Your task to perform on an android device: check data usage Image 0: 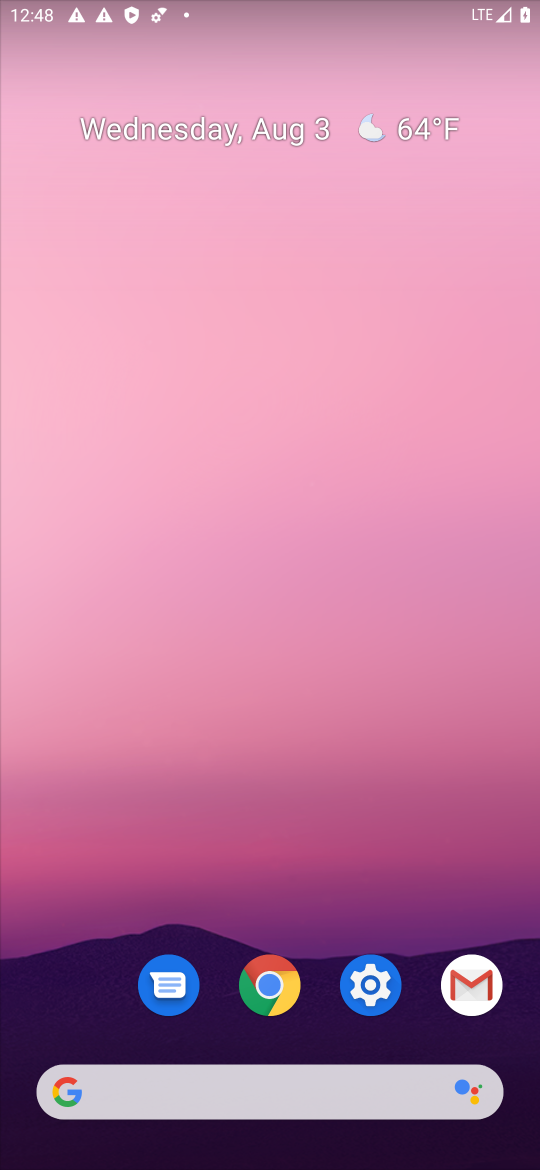
Step 0: press home button
Your task to perform on an android device: check data usage Image 1: 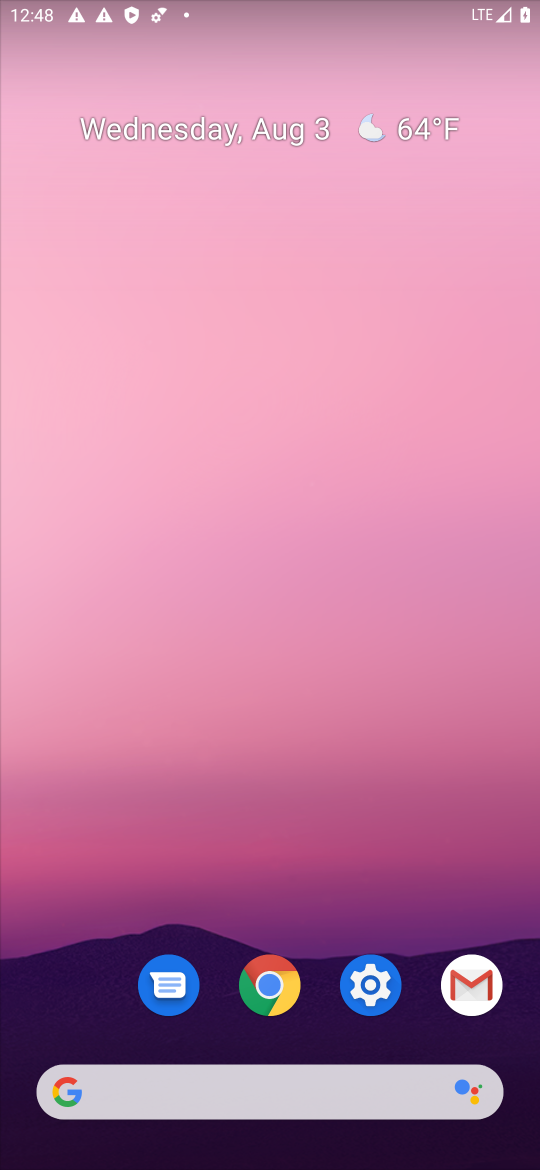
Step 1: click (369, 985)
Your task to perform on an android device: check data usage Image 2: 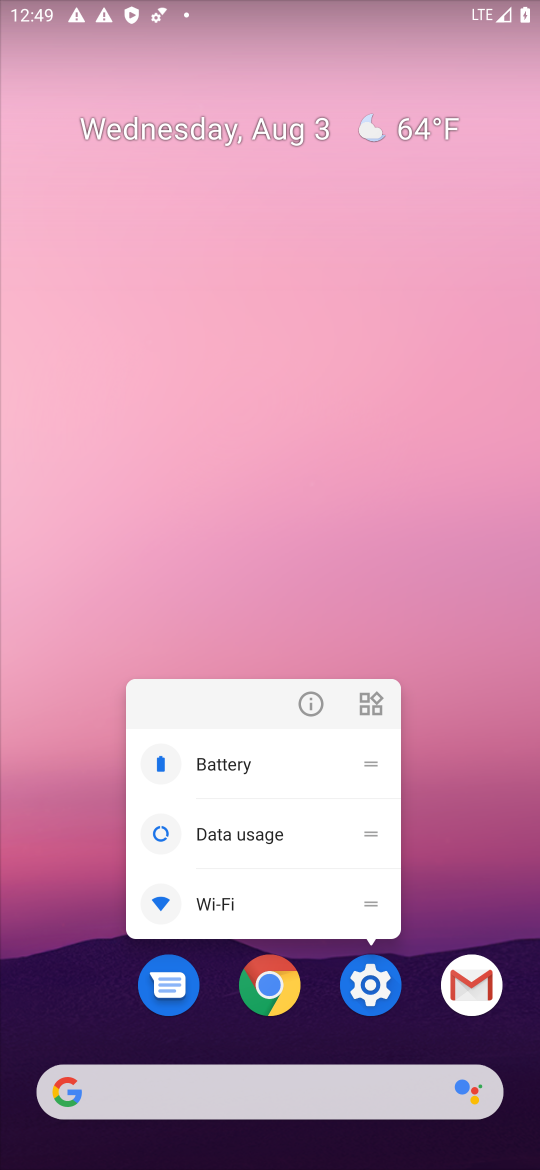
Step 2: click (364, 986)
Your task to perform on an android device: check data usage Image 3: 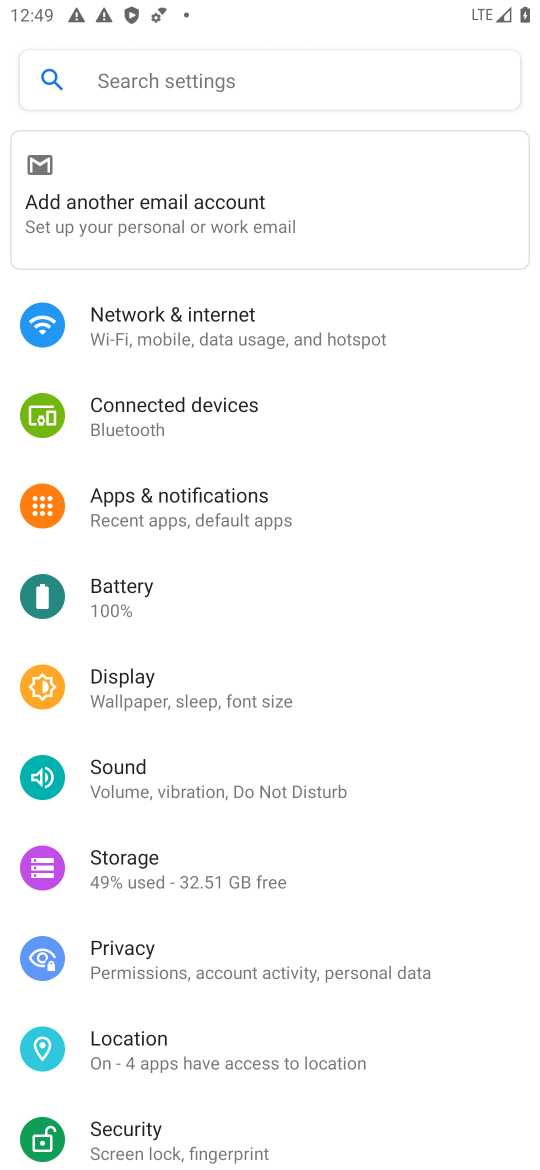
Step 3: click (161, 77)
Your task to perform on an android device: check data usage Image 4: 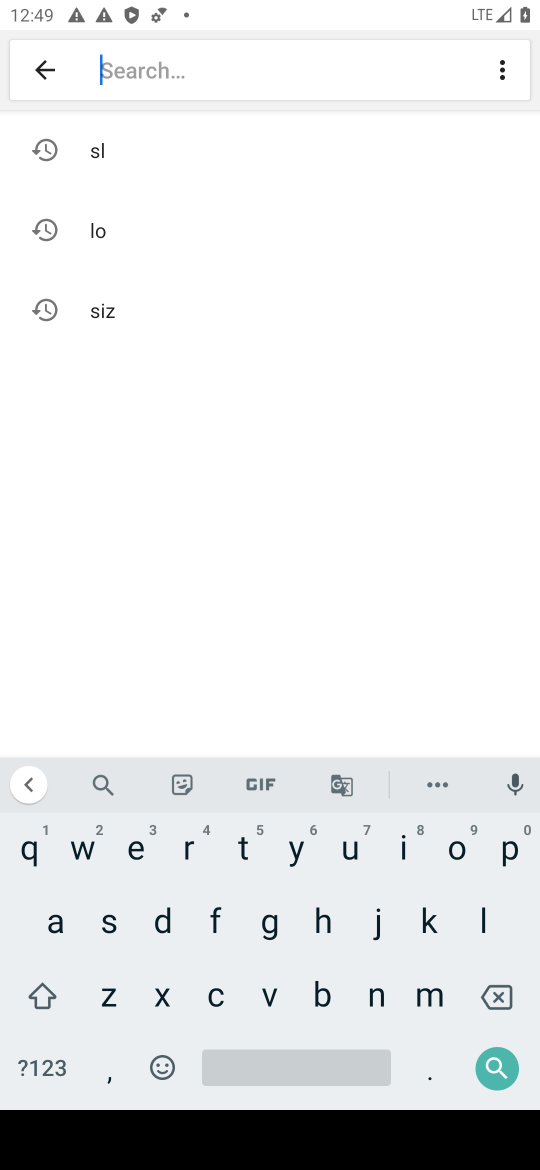
Step 4: click (165, 914)
Your task to perform on an android device: check data usage Image 5: 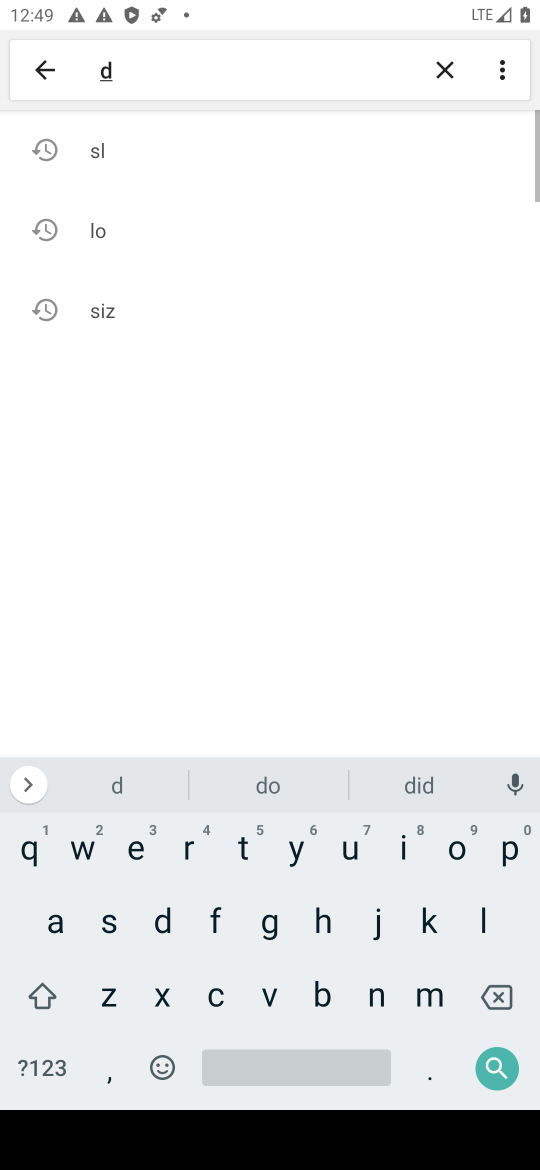
Step 5: click (43, 916)
Your task to perform on an android device: check data usage Image 6: 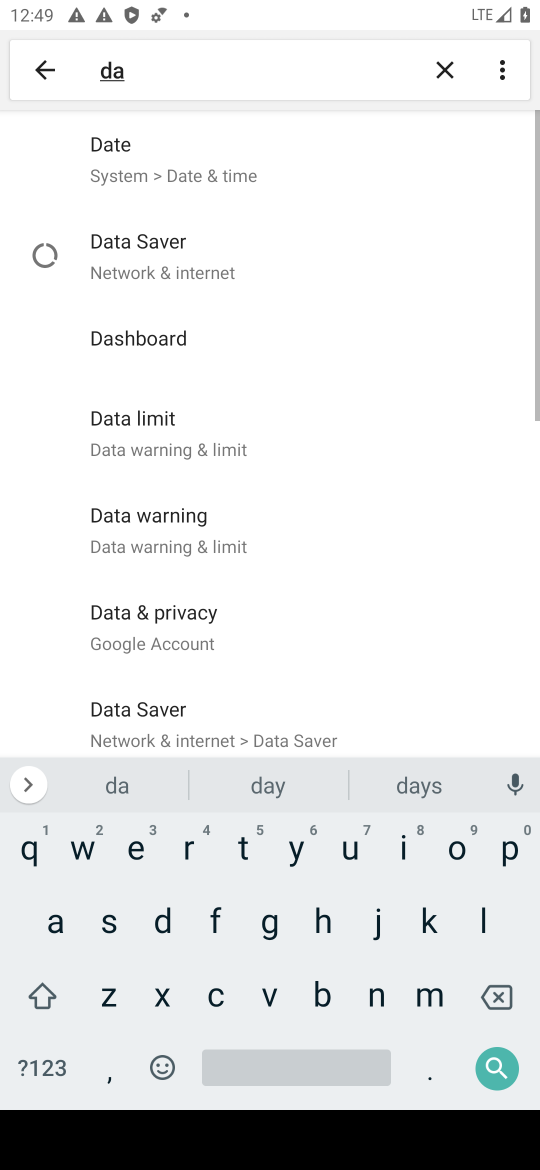
Step 6: click (247, 837)
Your task to perform on an android device: check data usage Image 7: 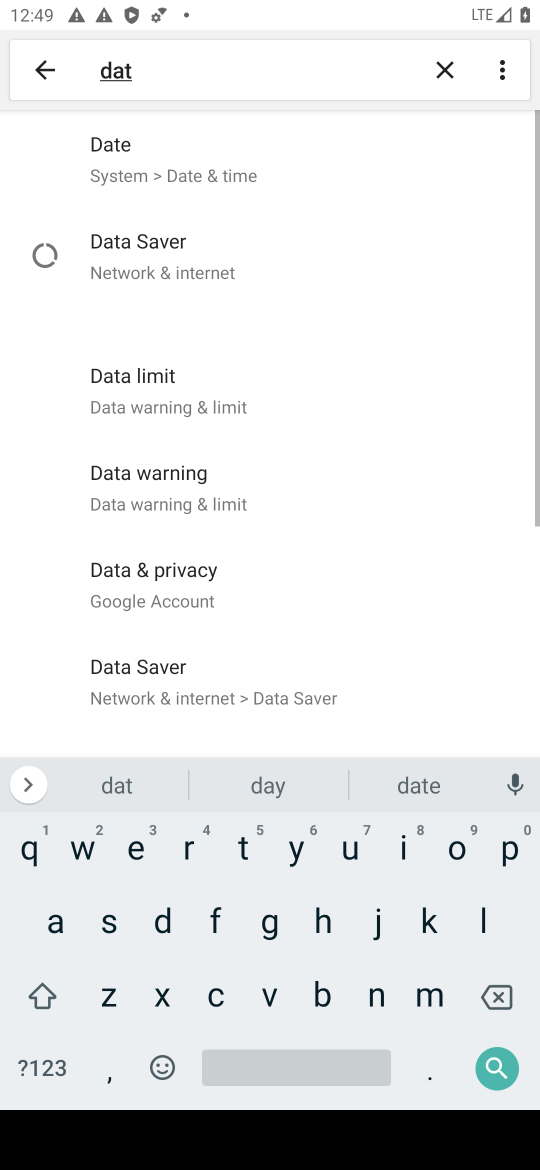
Step 7: click (51, 923)
Your task to perform on an android device: check data usage Image 8: 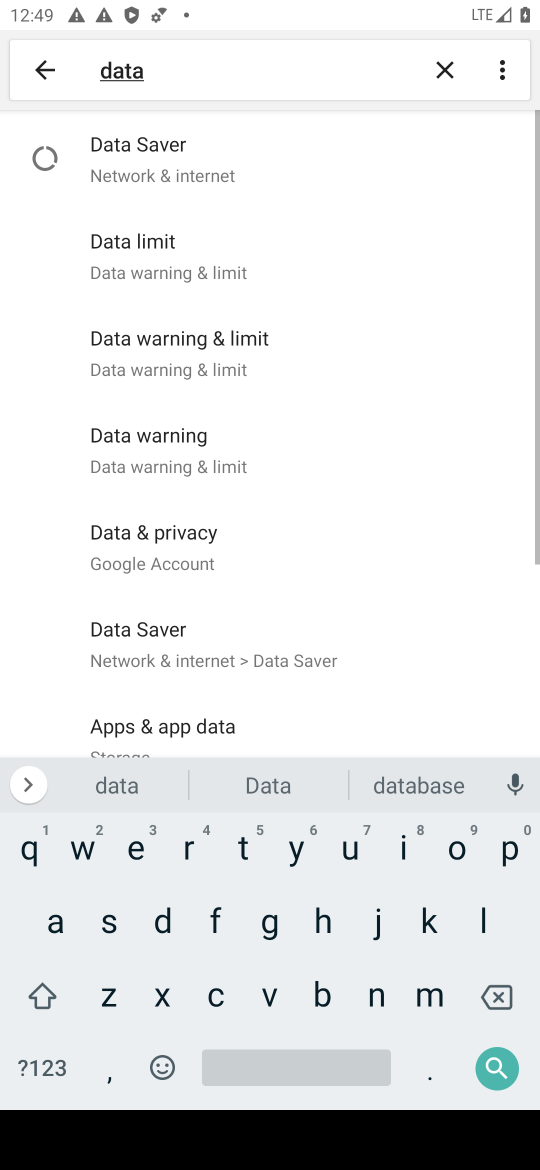
Step 8: click (278, 1047)
Your task to perform on an android device: check data usage Image 9: 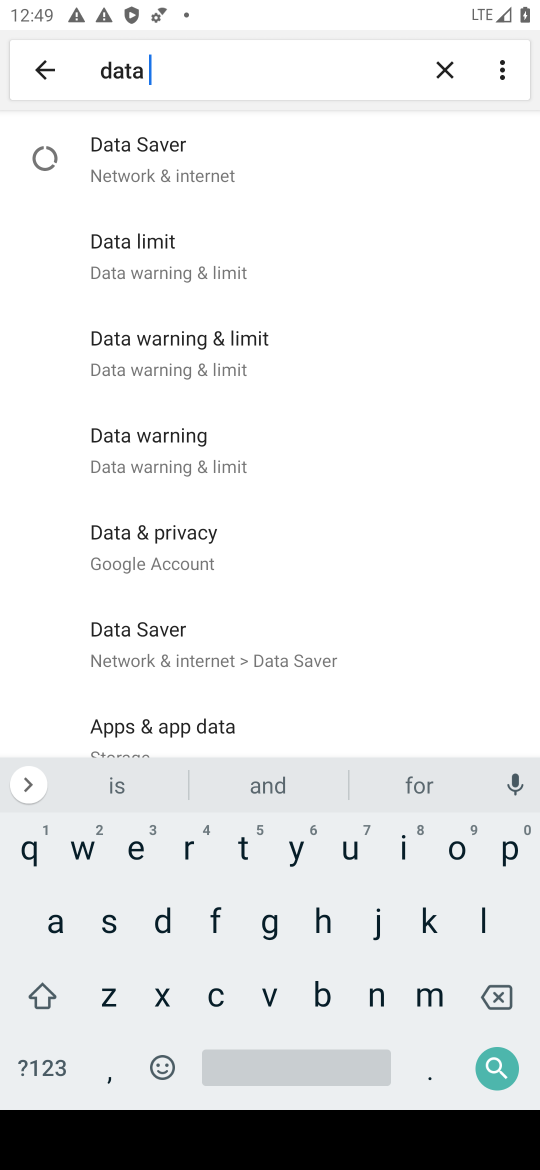
Step 9: click (355, 842)
Your task to perform on an android device: check data usage Image 10: 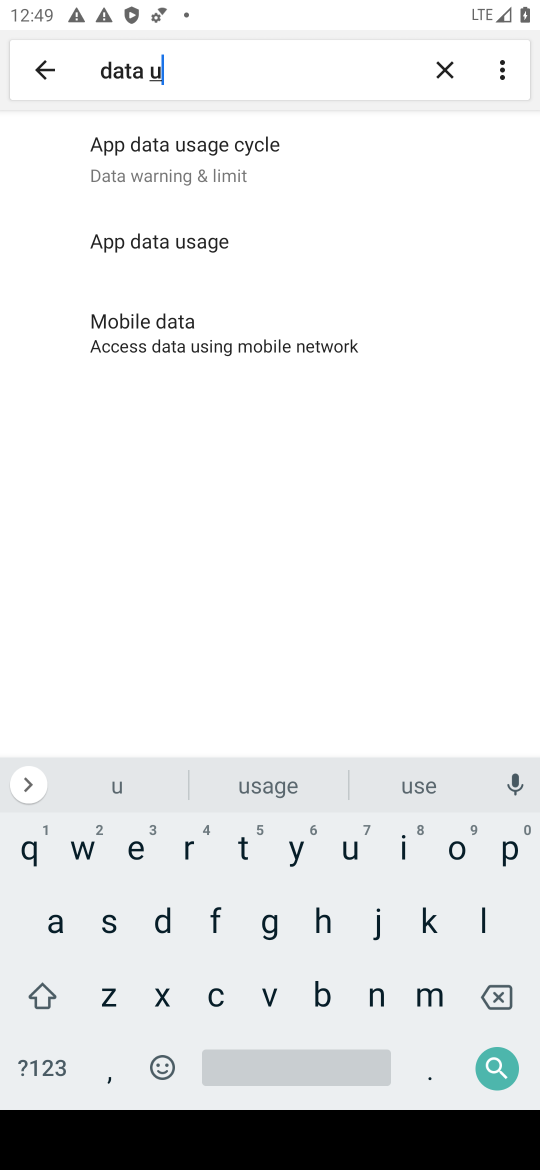
Step 10: click (204, 243)
Your task to perform on an android device: check data usage Image 11: 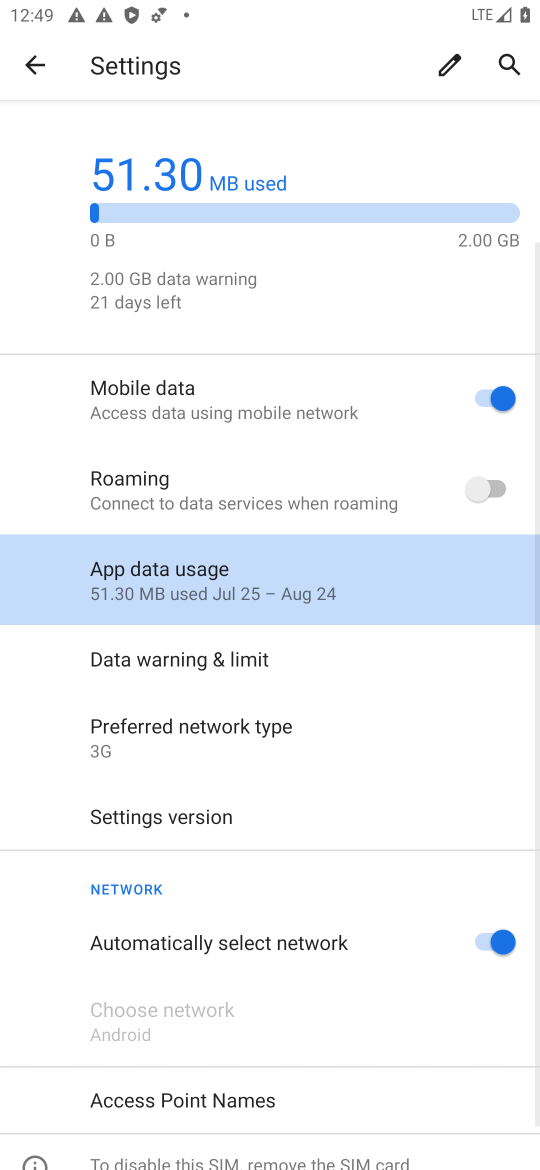
Step 11: click (249, 602)
Your task to perform on an android device: check data usage Image 12: 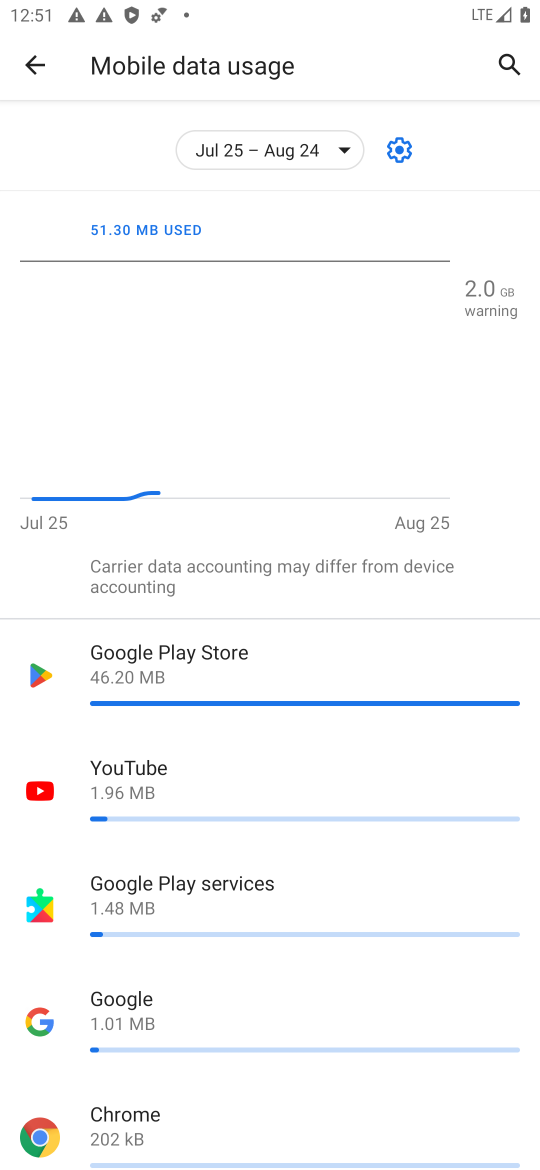
Step 12: task complete